Your task to perform on an android device: open app "DuckDuckGo Privacy Browser" (install if not already installed) Image 0: 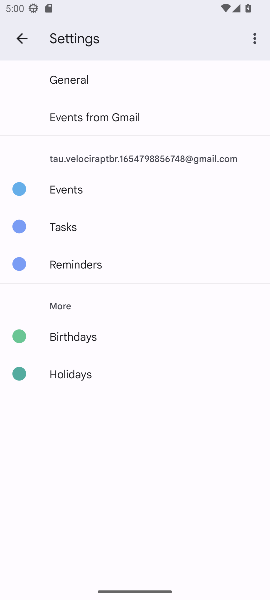
Step 0: press home button
Your task to perform on an android device: open app "DuckDuckGo Privacy Browser" (install if not already installed) Image 1: 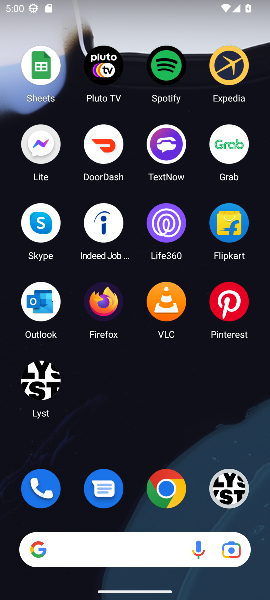
Step 1: drag from (128, 522) to (131, 127)
Your task to perform on an android device: open app "DuckDuckGo Privacy Browser" (install if not already installed) Image 2: 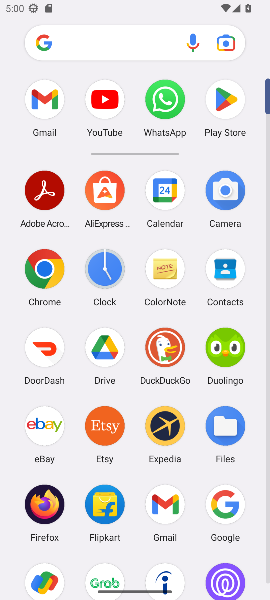
Step 2: click (223, 99)
Your task to perform on an android device: open app "DuckDuckGo Privacy Browser" (install if not already installed) Image 3: 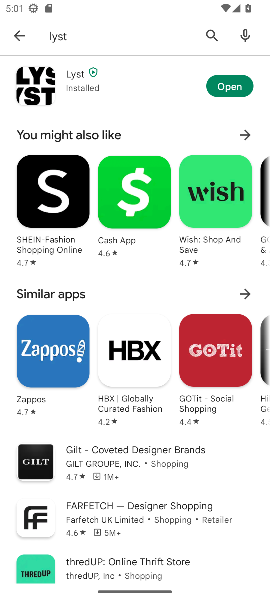
Step 3: click (207, 28)
Your task to perform on an android device: open app "DuckDuckGo Privacy Browser" (install if not already installed) Image 4: 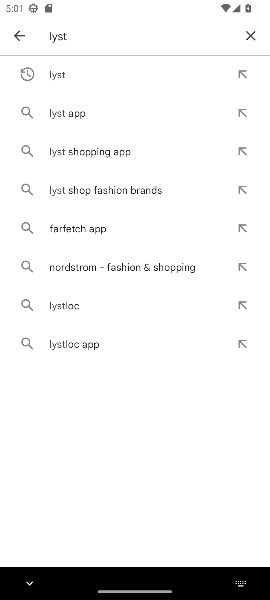
Step 4: click (242, 36)
Your task to perform on an android device: open app "DuckDuckGo Privacy Browser" (install if not already installed) Image 5: 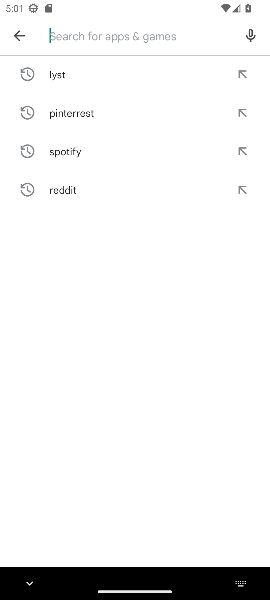
Step 5: type "duck duck go"
Your task to perform on an android device: open app "DuckDuckGo Privacy Browser" (install if not already installed) Image 6: 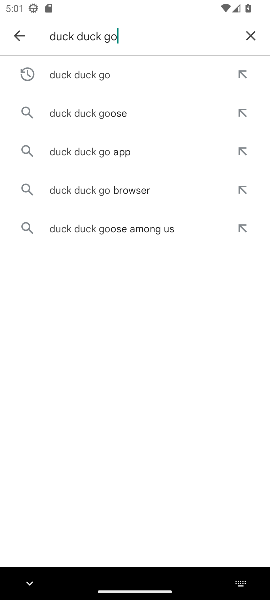
Step 6: click (100, 68)
Your task to perform on an android device: open app "DuckDuckGo Privacy Browser" (install if not already installed) Image 7: 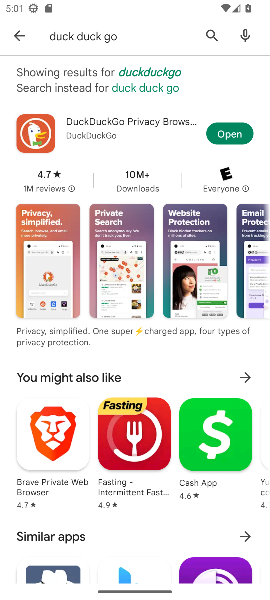
Step 7: click (223, 127)
Your task to perform on an android device: open app "DuckDuckGo Privacy Browser" (install if not already installed) Image 8: 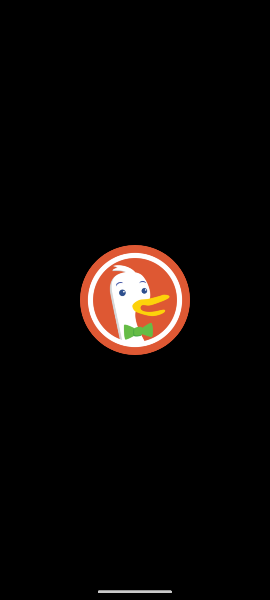
Step 8: task complete